Your task to perform on an android device: change the upload size in google photos Image 0: 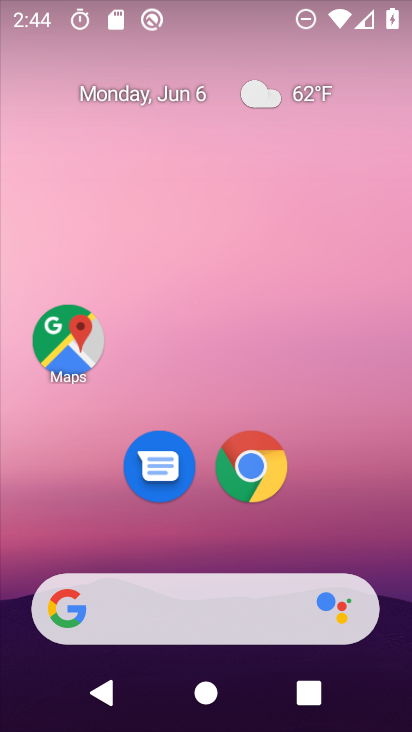
Step 0: drag from (229, 552) to (235, 81)
Your task to perform on an android device: change the upload size in google photos Image 1: 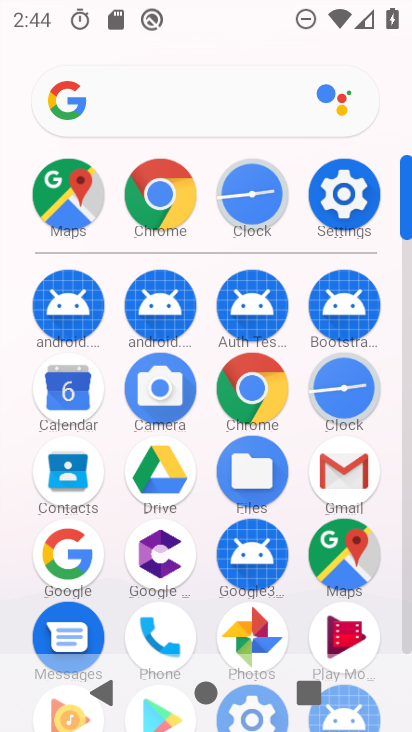
Step 1: click (251, 632)
Your task to perform on an android device: change the upload size in google photos Image 2: 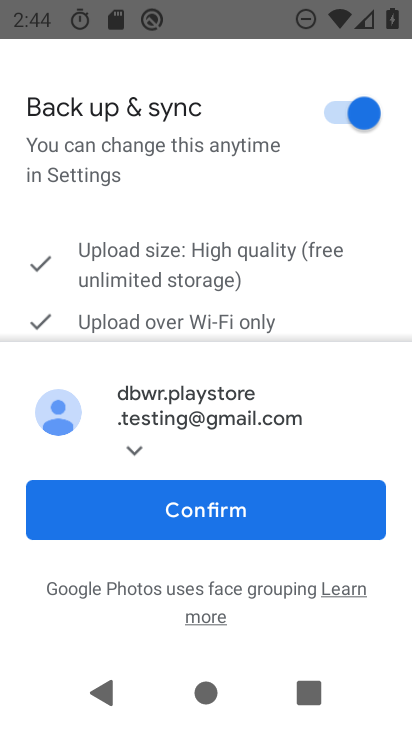
Step 2: click (198, 523)
Your task to perform on an android device: change the upload size in google photos Image 3: 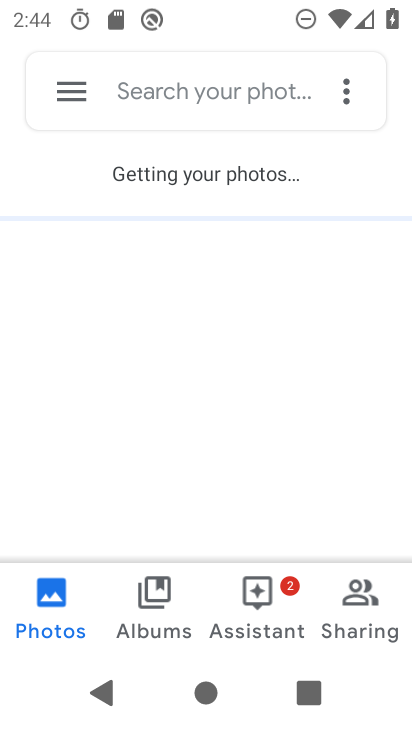
Step 3: click (71, 91)
Your task to perform on an android device: change the upload size in google photos Image 4: 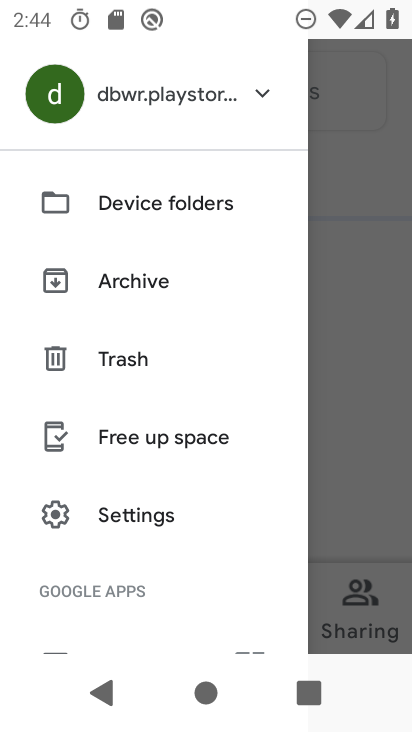
Step 4: drag from (149, 539) to (190, 278)
Your task to perform on an android device: change the upload size in google photos Image 5: 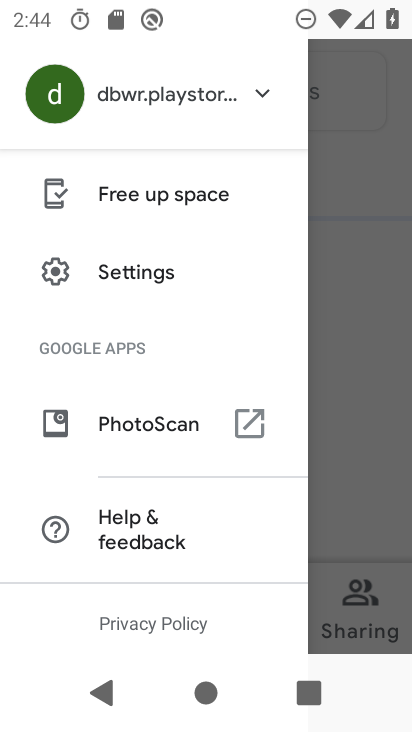
Step 5: drag from (157, 549) to (190, 310)
Your task to perform on an android device: change the upload size in google photos Image 6: 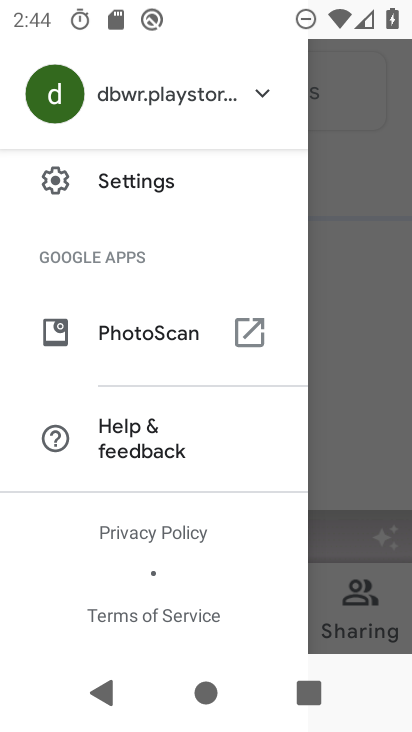
Step 6: drag from (146, 362) to (146, 412)
Your task to perform on an android device: change the upload size in google photos Image 7: 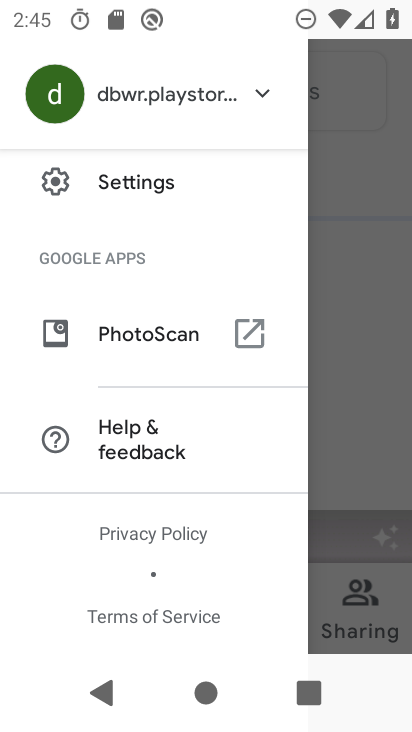
Step 7: drag from (178, 242) to (159, 518)
Your task to perform on an android device: change the upload size in google photos Image 8: 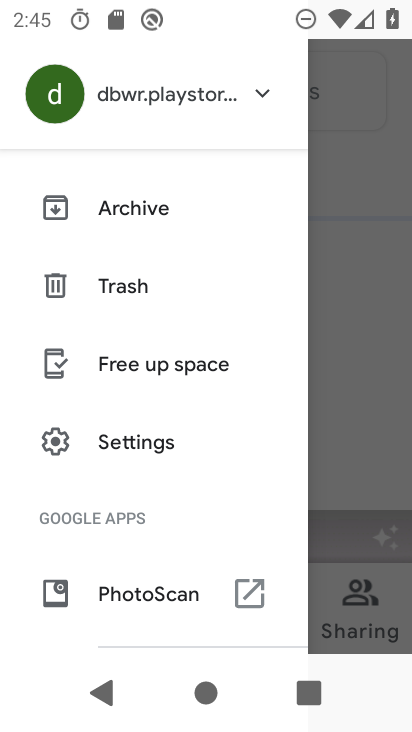
Step 8: drag from (172, 215) to (155, 490)
Your task to perform on an android device: change the upload size in google photos Image 9: 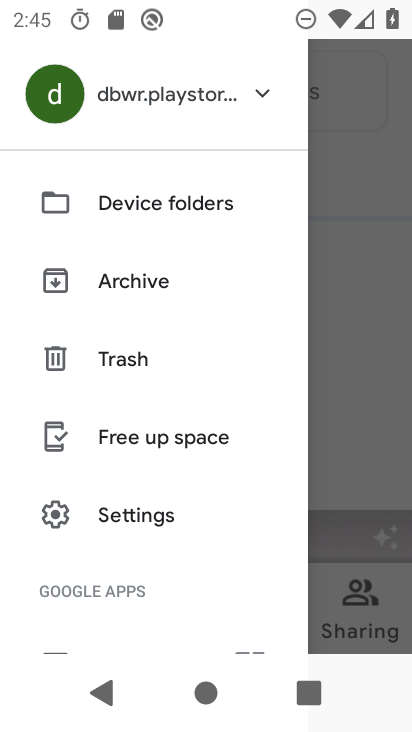
Step 9: click (143, 520)
Your task to perform on an android device: change the upload size in google photos Image 10: 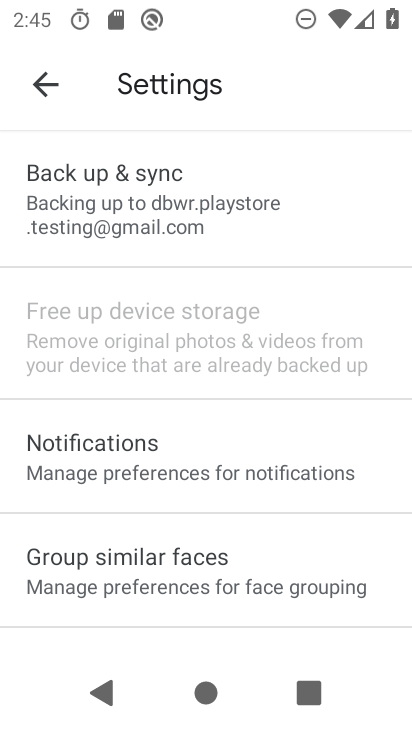
Step 10: click (175, 224)
Your task to perform on an android device: change the upload size in google photos Image 11: 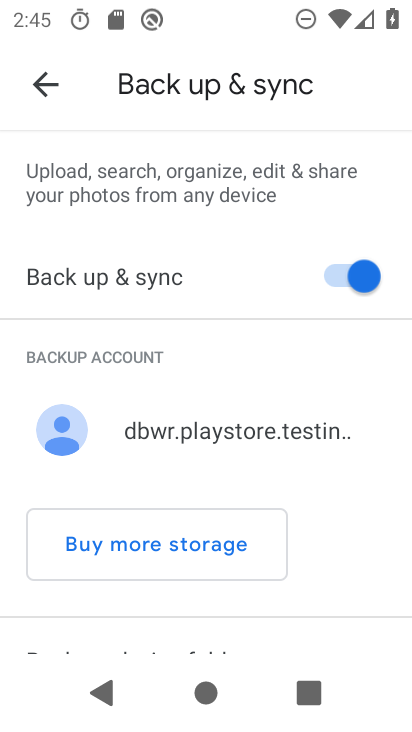
Step 11: drag from (223, 482) to (266, 141)
Your task to perform on an android device: change the upload size in google photos Image 12: 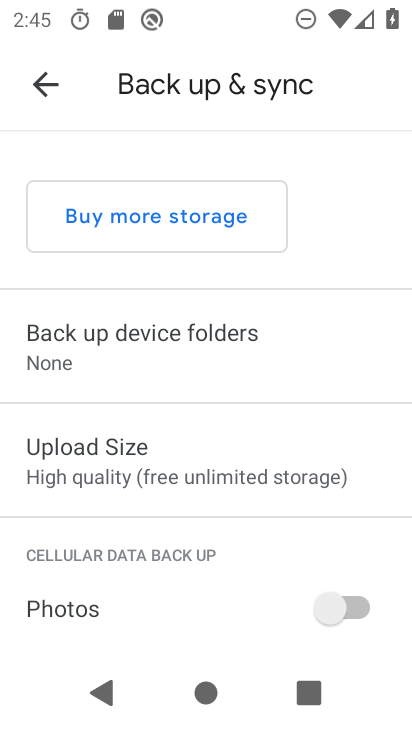
Step 12: click (147, 352)
Your task to perform on an android device: change the upload size in google photos Image 13: 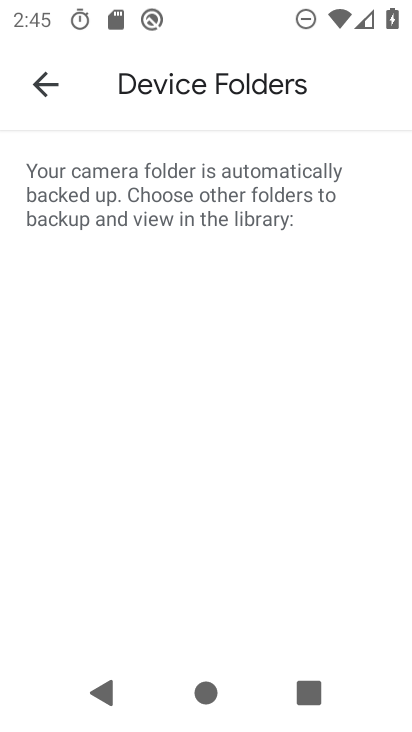
Step 13: click (39, 86)
Your task to perform on an android device: change the upload size in google photos Image 14: 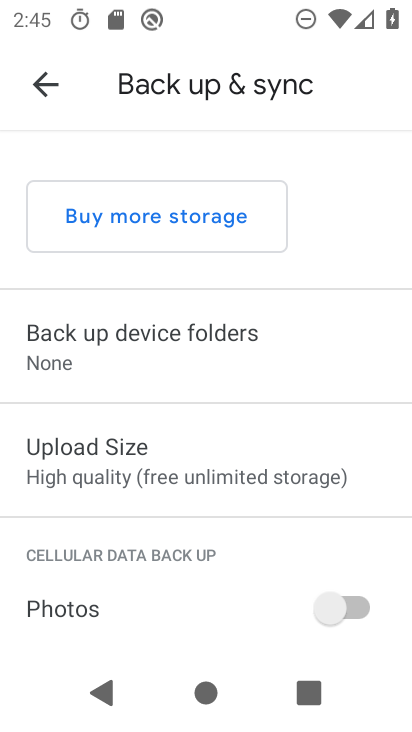
Step 14: click (142, 460)
Your task to perform on an android device: change the upload size in google photos Image 15: 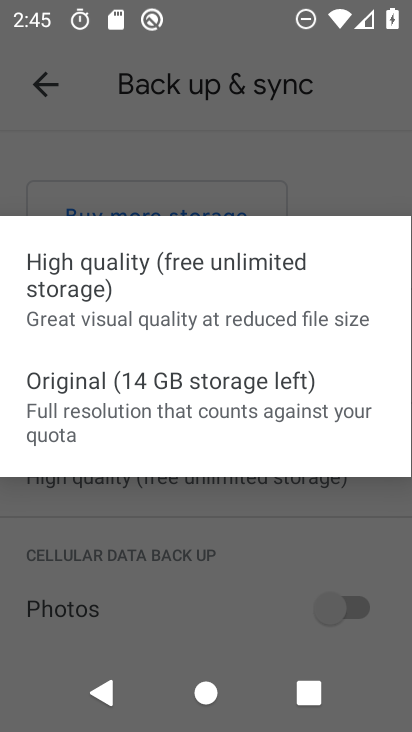
Step 15: click (188, 391)
Your task to perform on an android device: change the upload size in google photos Image 16: 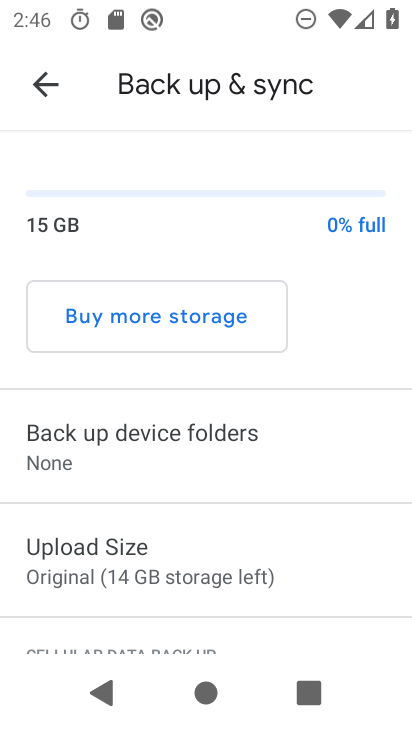
Step 16: task complete